Your task to perform on an android device: snooze an email in the gmail app Image 0: 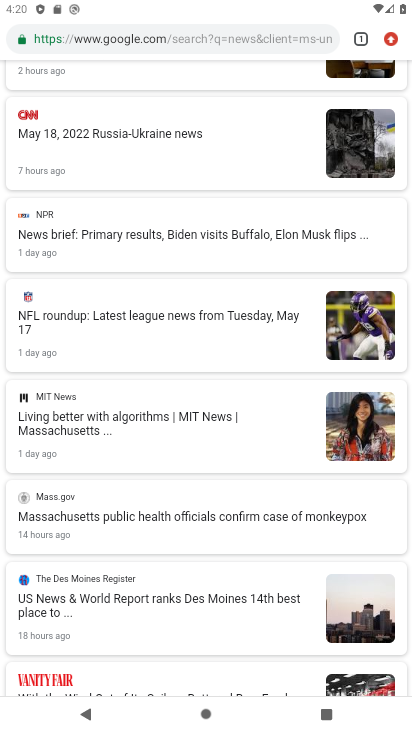
Step 0: press home button
Your task to perform on an android device: snooze an email in the gmail app Image 1: 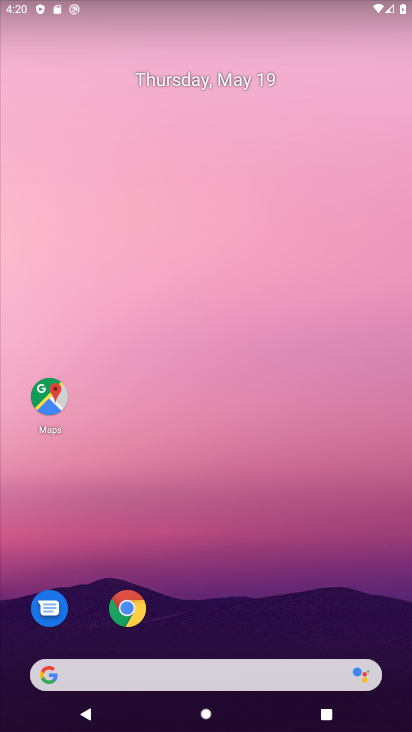
Step 1: drag from (287, 604) to (229, 124)
Your task to perform on an android device: snooze an email in the gmail app Image 2: 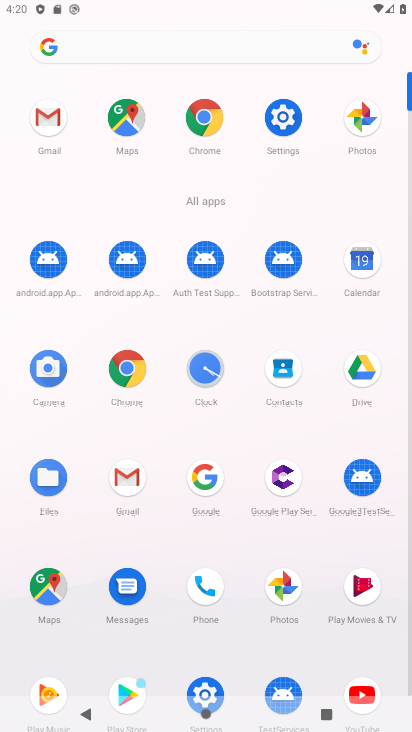
Step 2: click (49, 120)
Your task to perform on an android device: snooze an email in the gmail app Image 3: 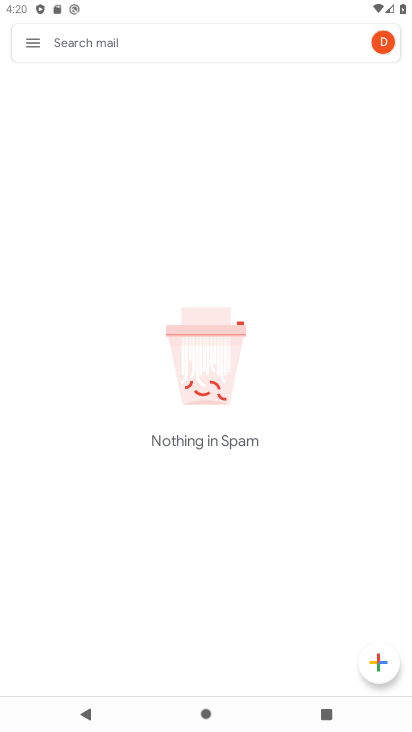
Step 3: click (34, 50)
Your task to perform on an android device: snooze an email in the gmail app Image 4: 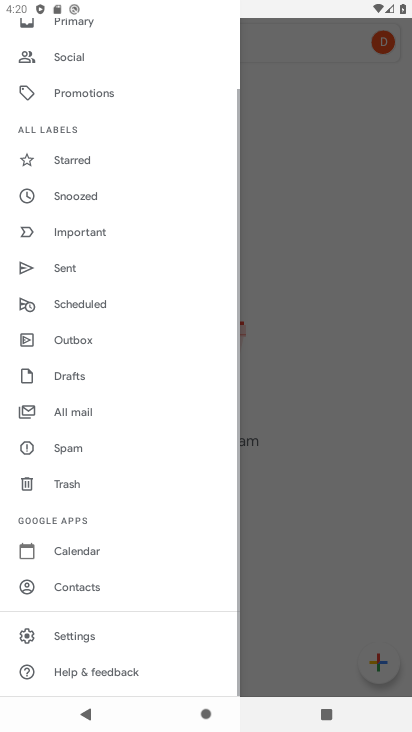
Step 4: click (84, 410)
Your task to perform on an android device: snooze an email in the gmail app Image 5: 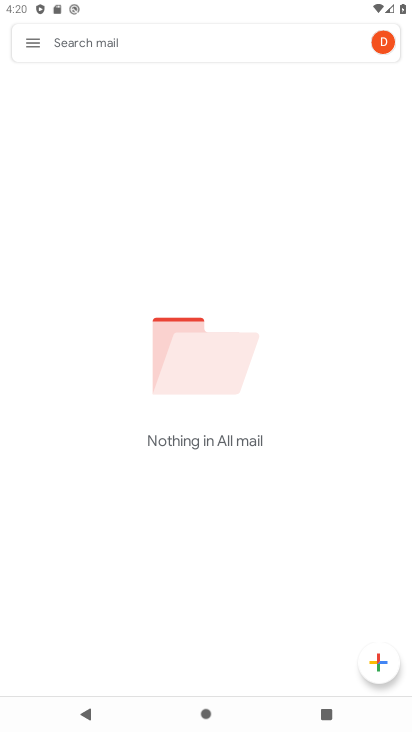
Step 5: task complete